Your task to perform on an android device: open the mobile data screen to see how much data has been used Image 0: 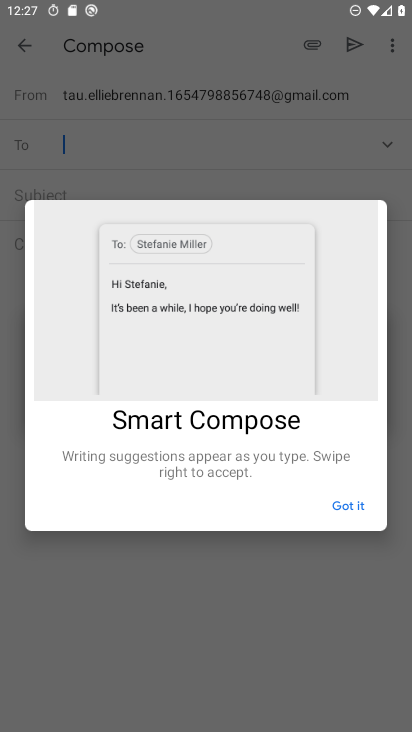
Step 0: press home button
Your task to perform on an android device: open the mobile data screen to see how much data has been used Image 1: 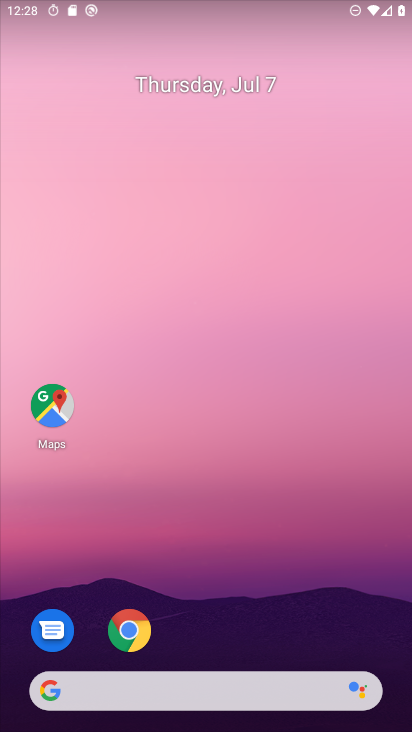
Step 1: drag from (213, 593) to (222, 90)
Your task to perform on an android device: open the mobile data screen to see how much data has been used Image 2: 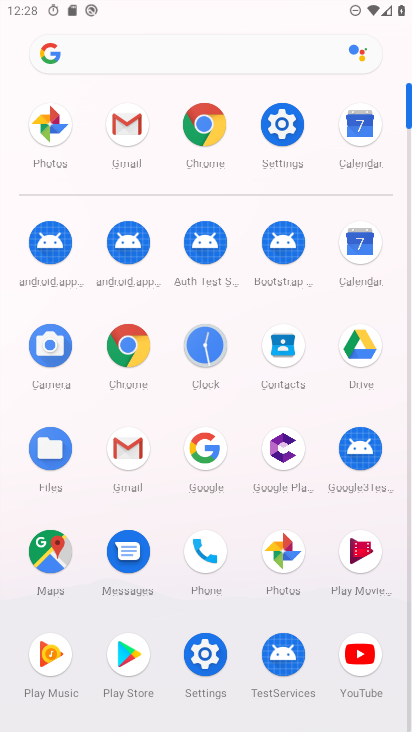
Step 2: click (283, 140)
Your task to perform on an android device: open the mobile data screen to see how much data has been used Image 3: 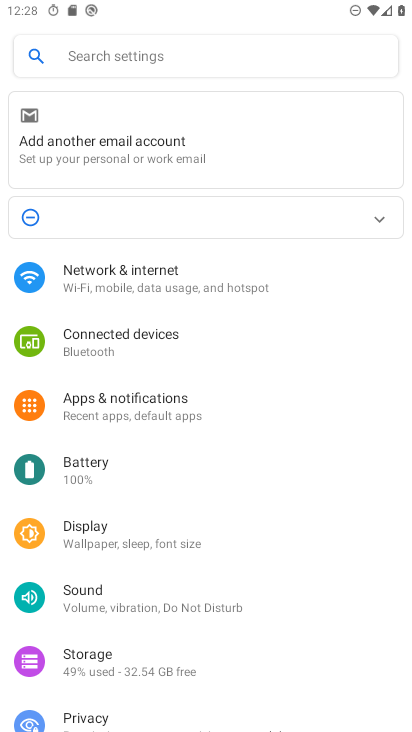
Step 3: click (144, 284)
Your task to perform on an android device: open the mobile data screen to see how much data has been used Image 4: 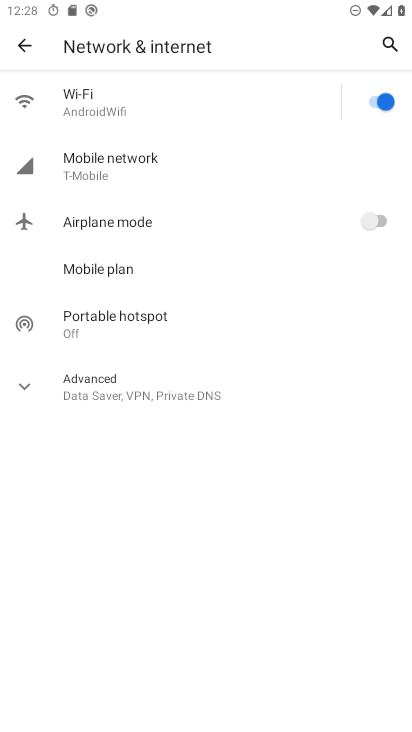
Step 4: click (151, 153)
Your task to perform on an android device: open the mobile data screen to see how much data has been used Image 5: 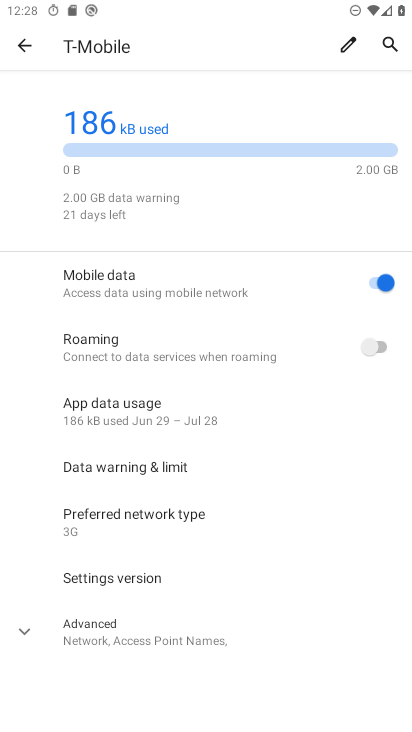
Step 5: drag from (154, 585) to (156, 542)
Your task to perform on an android device: open the mobile data screen to see how much data has been used Image 6: 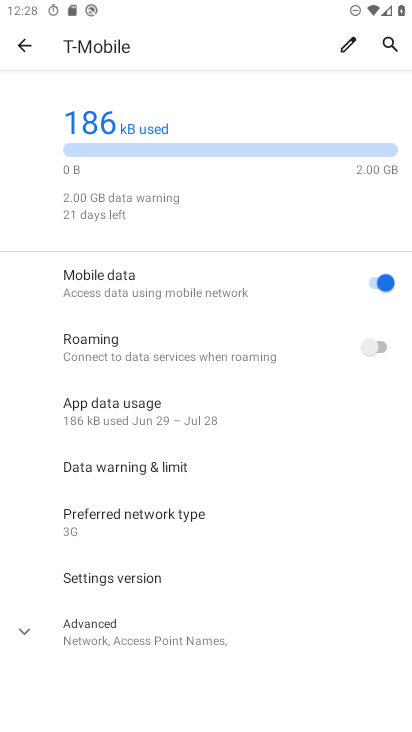
Step 6: click (159, 409)
Your task to perform on an android device: open the mobile data screen to see how much data has been used Image 7: 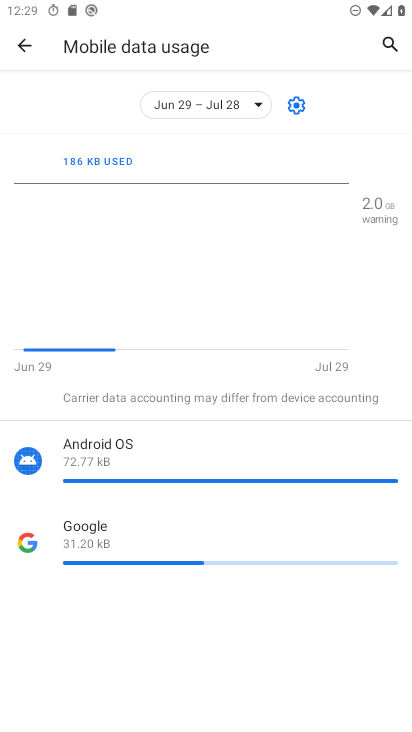
Step 7: task complete